Your task to perform on an android device: stop showing notifications on the lock screen Image 0: 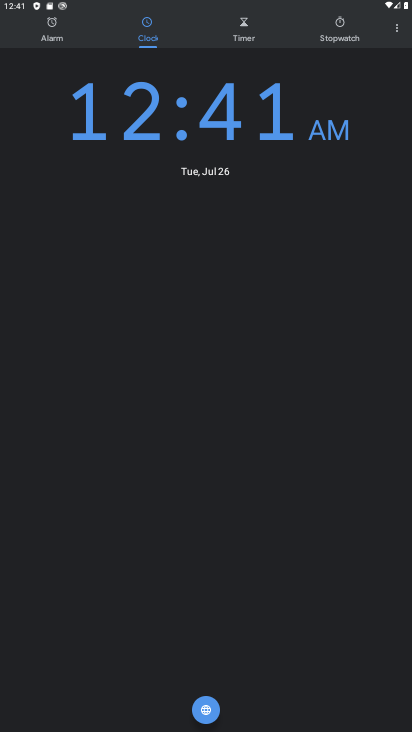
Step 0: press home button
Your task to perform on an android device: stop showing notifications on the lock screen Image 1: 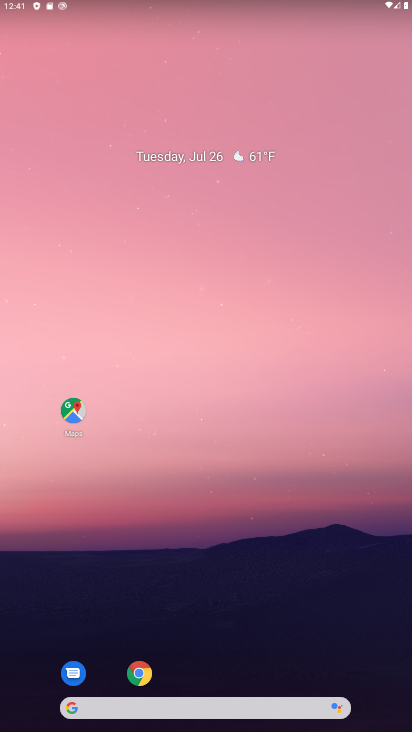
Step 1: drag from (201, 672) to (312, 122)
Your task to perform on an android device: stop showing notifications on the lock screen Image 2: 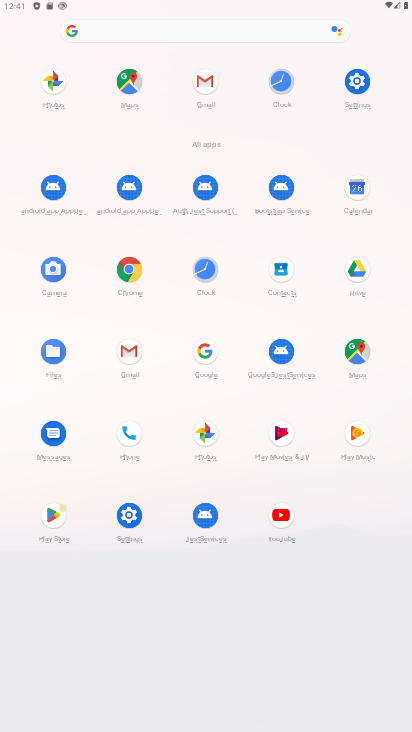
Step 2: click (362, 85)
Your task to perform on an android device: stop showing notifications on the lock screen Image 3: 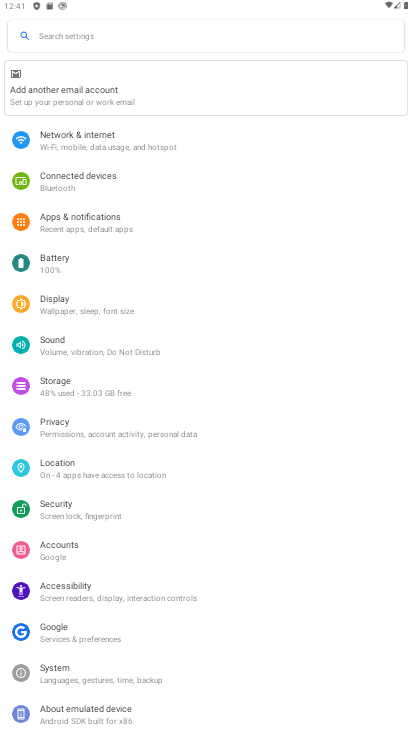
Step 3: click (123, 226)
Your task to perform on an android device: stop showing notifications on the lock screen Image 4: 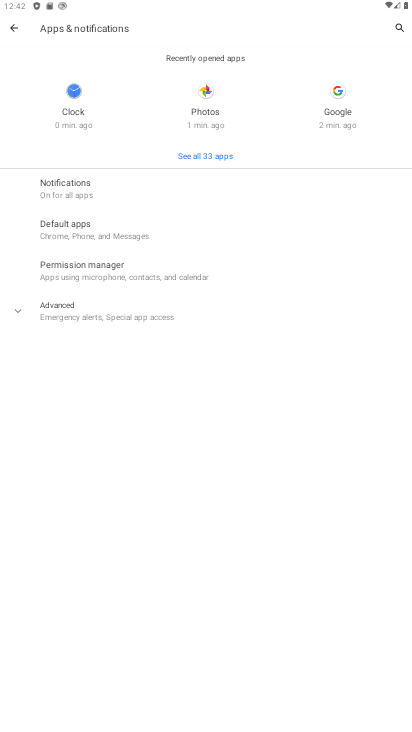
Step 4: click (145, 186)
Your task to perform on an android device: stop showing notifications on the lock screen Image 5: 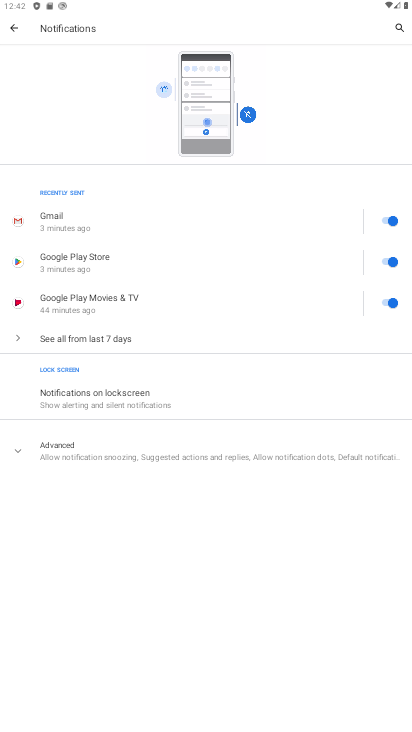
Step 5: click (165, 409)
Your task to perform on an android device: stop showing notifications on the lock screen Image 6: 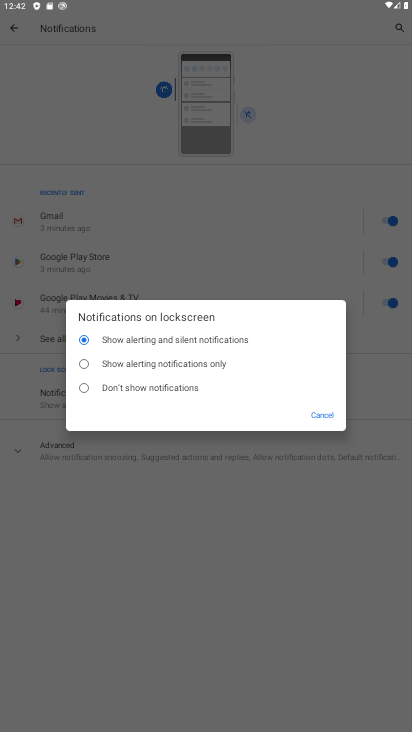
Step 6: click (132, 382)
Your task to perform on an android device: stop showing notifications on the lock screen Image 7: 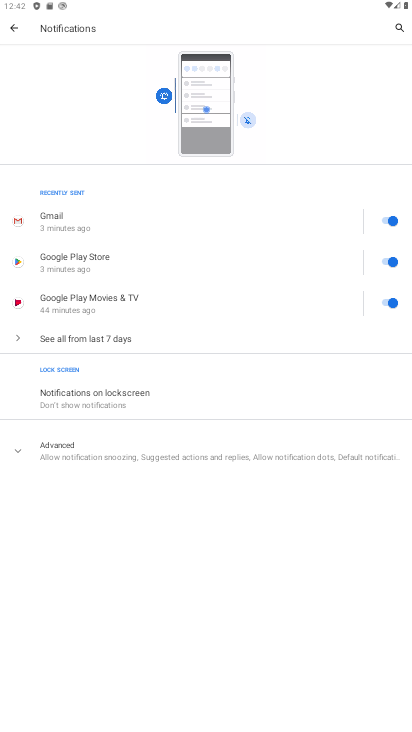
Step 7: task complete